Your task to perform on an android device: Turn on the flashlight Image 0: 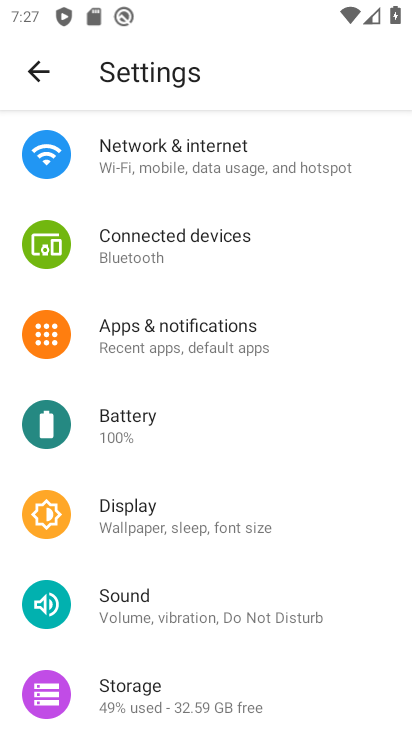
Step 0: press home button
Your task to perform on an android device: Turn on the flashlight Image 1: 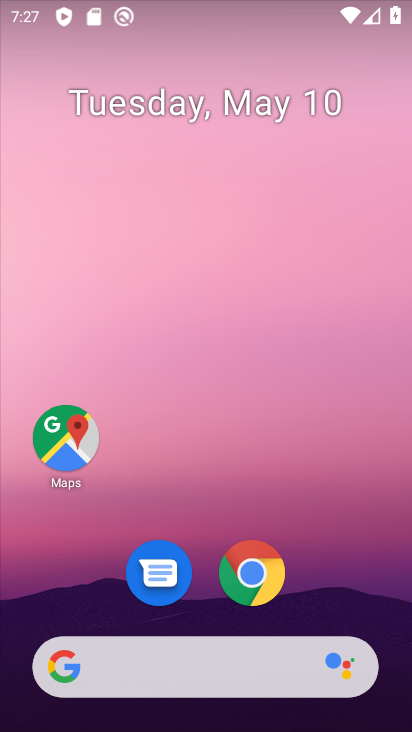
Step 1: drag from (316, 551) to (299, 91)
Your task to perform on an android device: Turn on the flashlight Image 2: 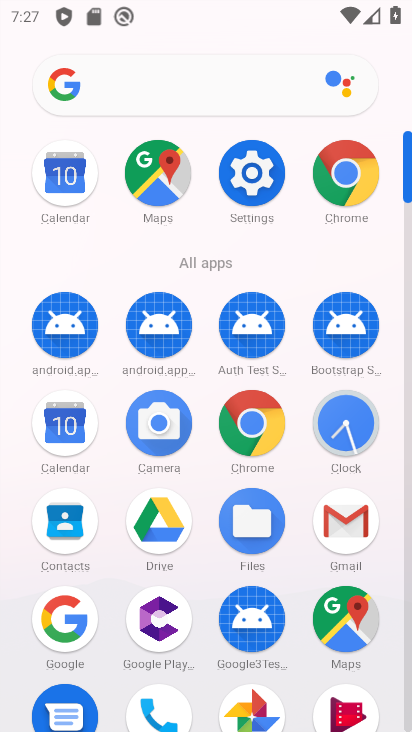
Step 2: click (248, 185)
Your task to perform on an android device: Turn on the flashlight Image 3: 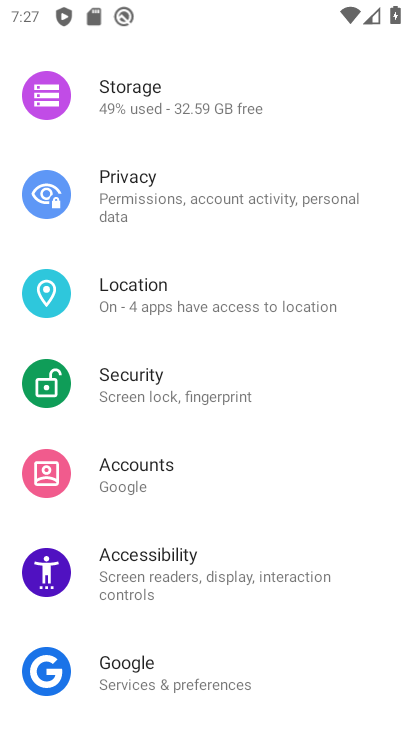
Step 3: drag from (219, 115) to (237, 426)
Your task to perform on an android device: Turn on the flashlight Image 4: 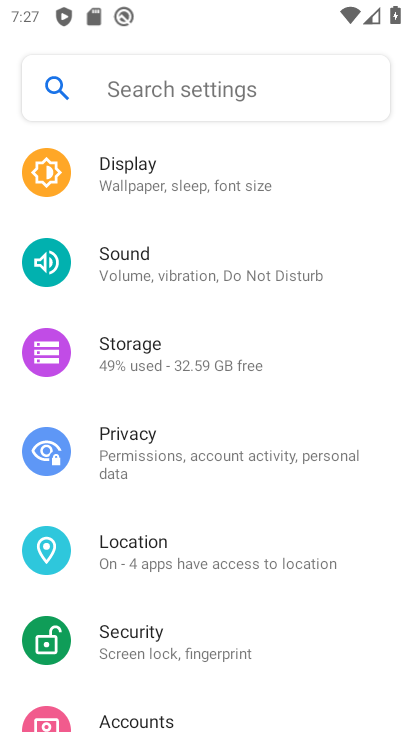
Step 4: click (204, 67)
Your task to perform on an android device: Turn on the flashlight Image 5: 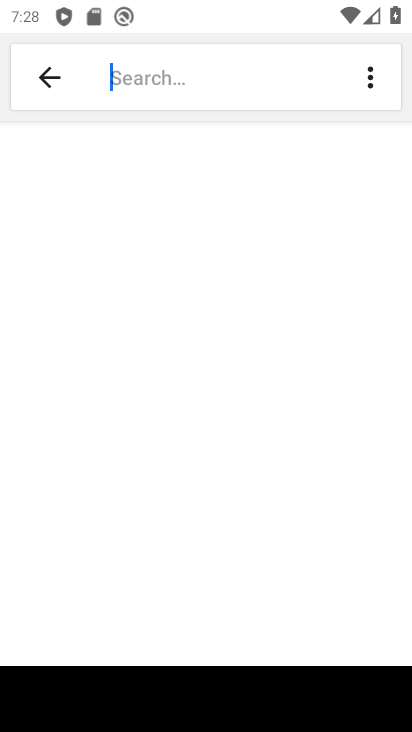
Step 5: type "flashlight"
Your task to perform on an android device: Turn on the flashlight Image 6: 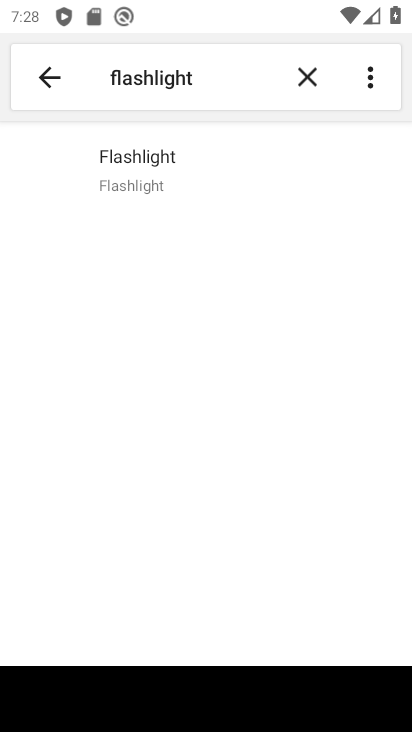
Step 6: click (147, 175)
Your task to perform on an android device: Turn on the flashlight Image 7: 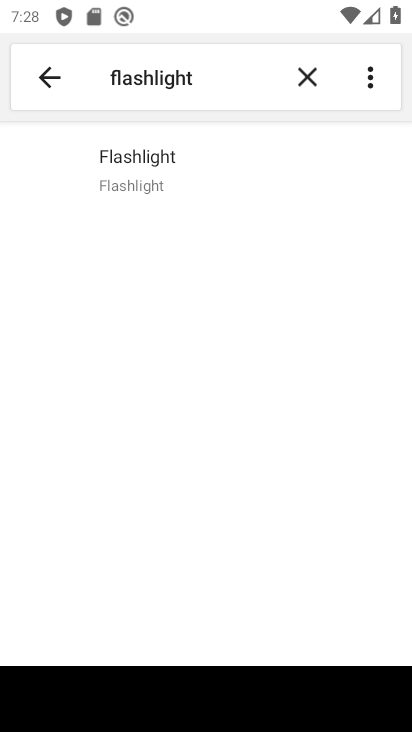
Step 7: task complete